Your task to perform on an android device: Open Chrome and go to the settings page Image 0: 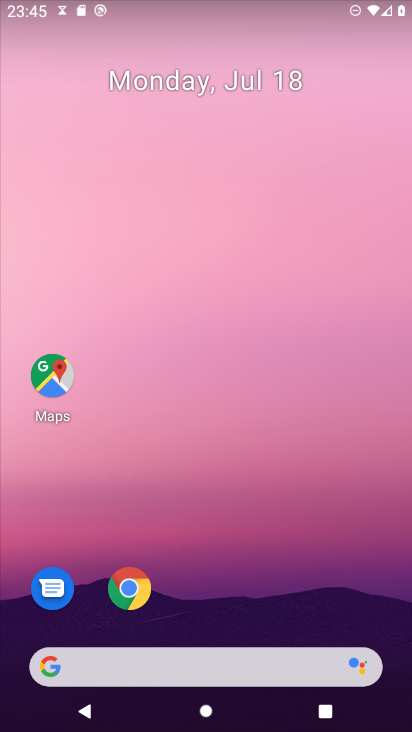
Step 0: press home button
Your task to perform on an android device: Open Chrome and go to the settings page Image 1: 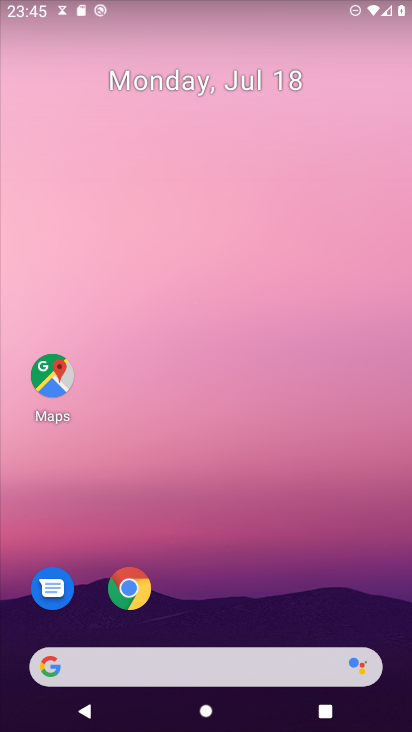
Step 1: click (131, 591)
Your task to perform on an android device: Open Chrome and go to the settings page Image 2: 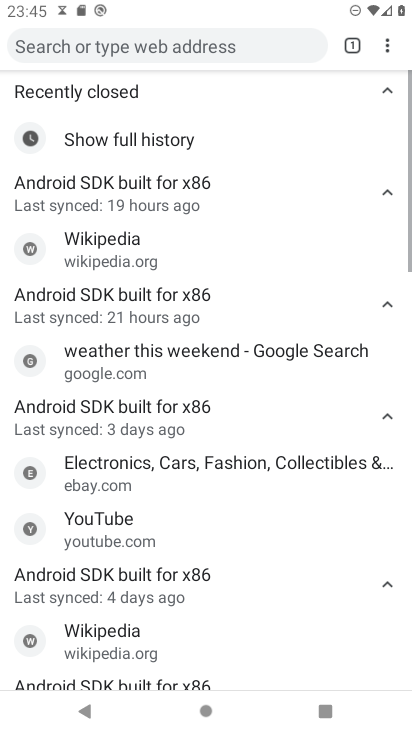
Step 2: task complete